Your task to perform on an android device: toggle location history Image 0: 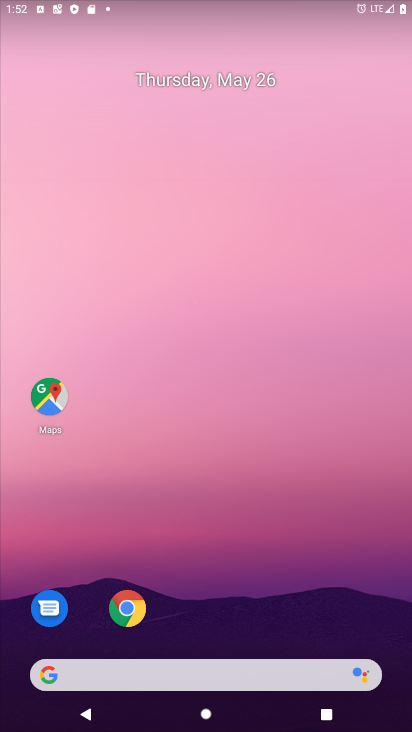
Step 0: drag from (395, 569) to (349, 115)
Your task to perform on an android device: toggle location history Image 1: 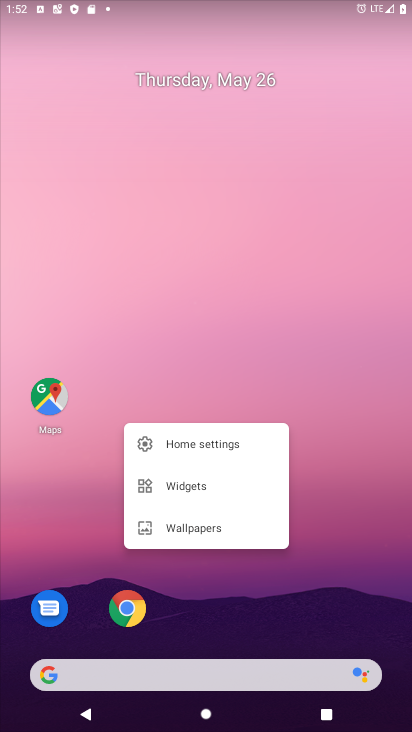
Step 1: drag from (343, 531) to (295, 153)
Your task to perform on an android device: toggle location history Image 2: 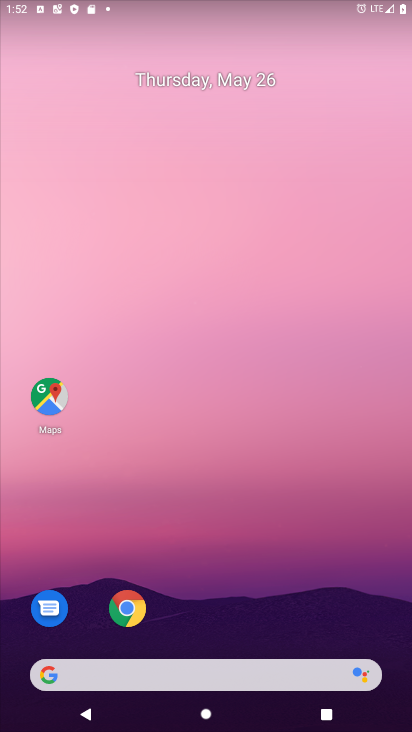
Step 2: click (55, 394)
Your task to perform on an android device: toggle location history Image 3: 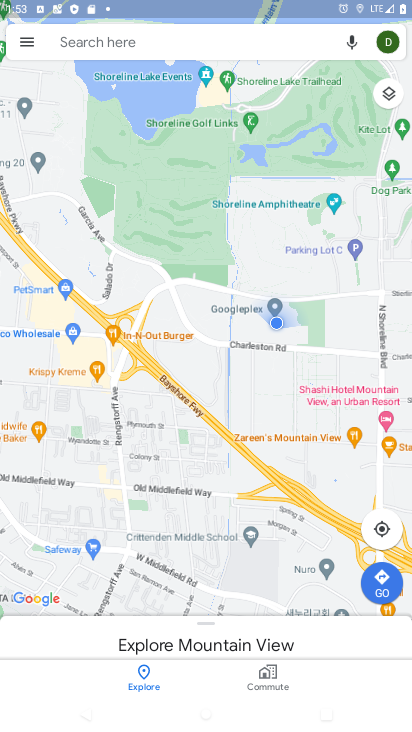
Step 3: click (25, 45)
Your task to perform on an android device: toggle location history Image 4: 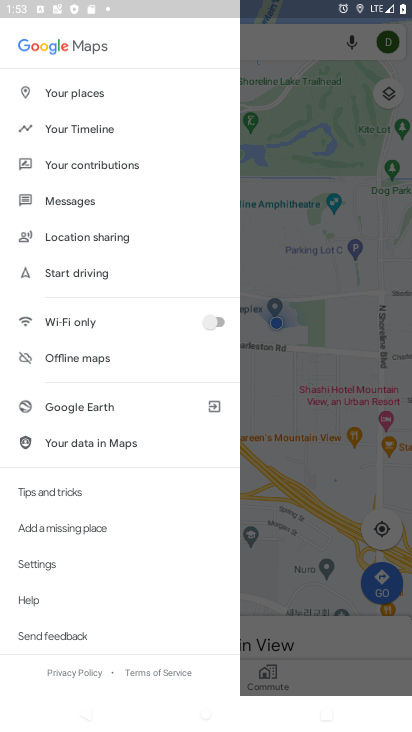
Step 4: click (53, 560)
Your task to perform on an android device: toggle location history Image 5: 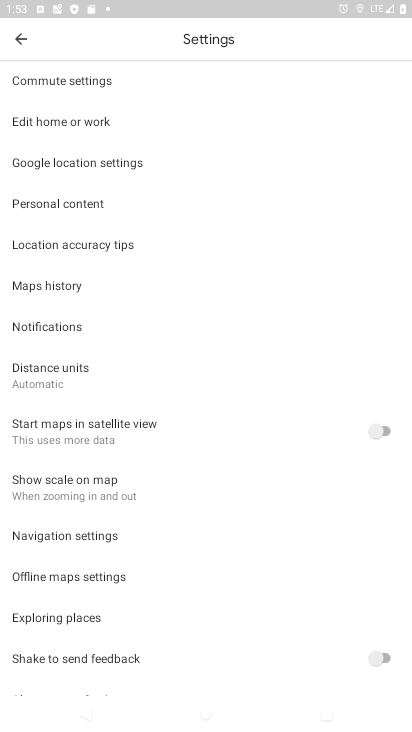
Step 5: click (64, 202)
Your task to perform on an android device: toggle location history Image 6: 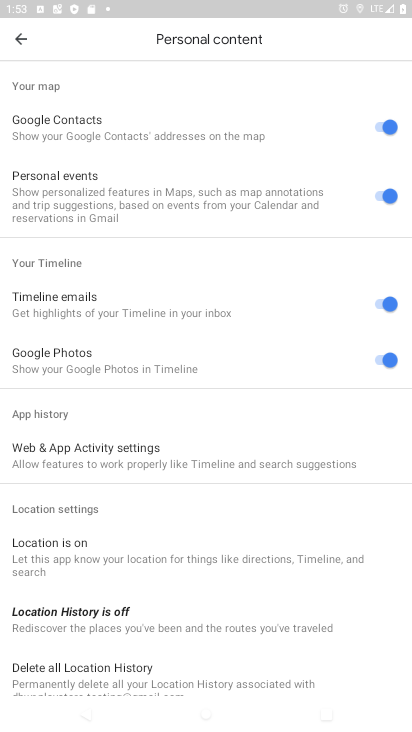
Step 6: click (58, 624)
Your task to perform on an android device: toggle location history Image 7: 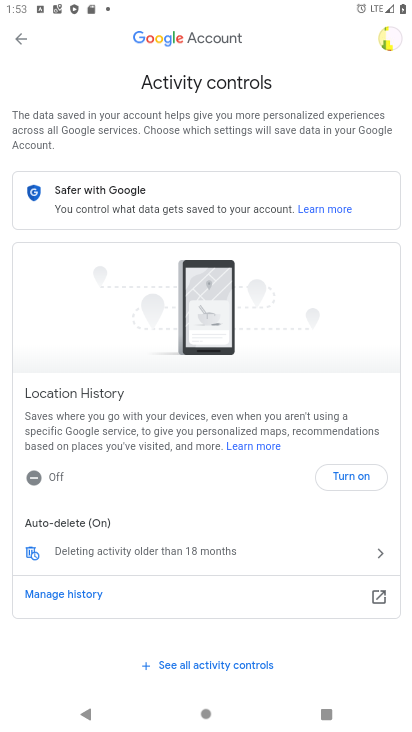
Step 7: drag from (320, 631) to (282, 369)
Your task to perform on an android device: toggle location history Image 8: 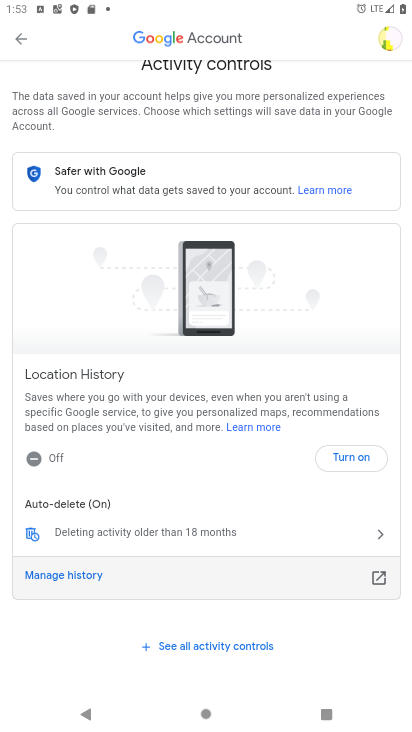
Step 8: click (357, 452)
Your task to perform on an android device: toggle location history Image 9: 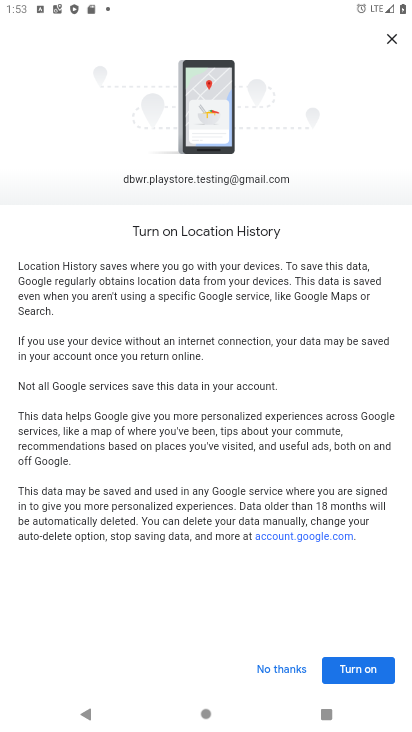
Step 9: click (347, 667)
Your task to perform on an android device: toggle location history Image 10: 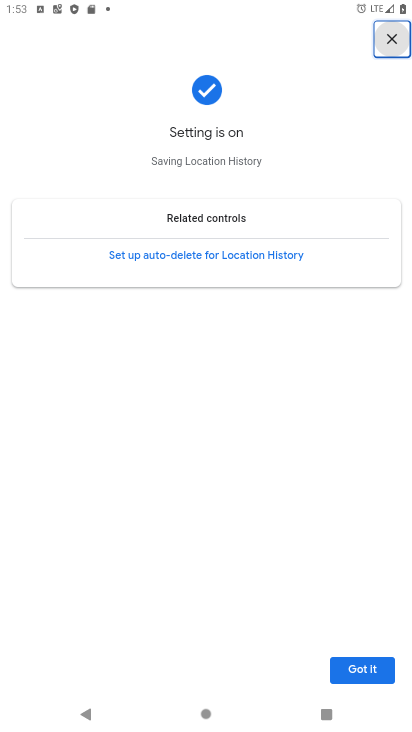
Step 10: click (364, 666)
Your task to perform on an android device: toggle location history Image 11: 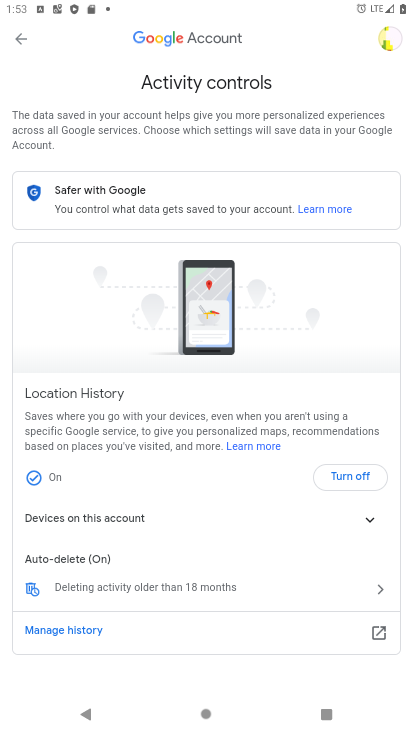
Step 11: task complete